Your task to perform on an android device: turn on airplane mode Image 0: 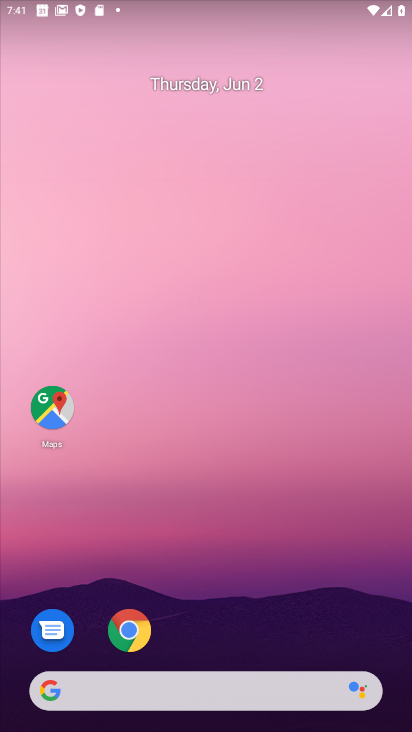
Step 0: drag from (177, 189) to (160, 725)
Your task to perform on an android device: turn on airplane mode Image 1: 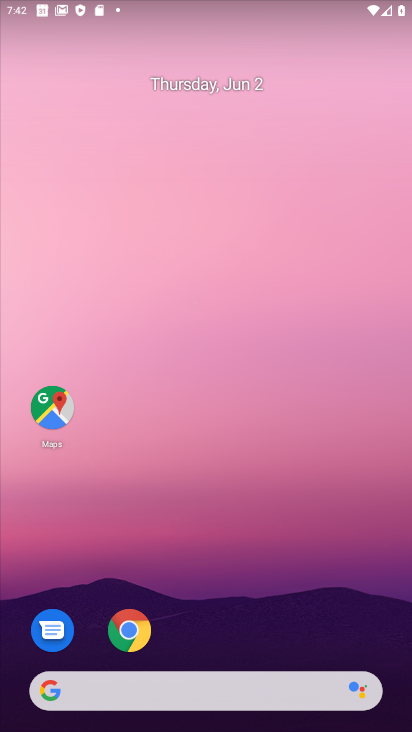
Step 1: drag from (219, 61) to (225, 592)
Your task to perform on an android device: turn on airplane mode Image 2: 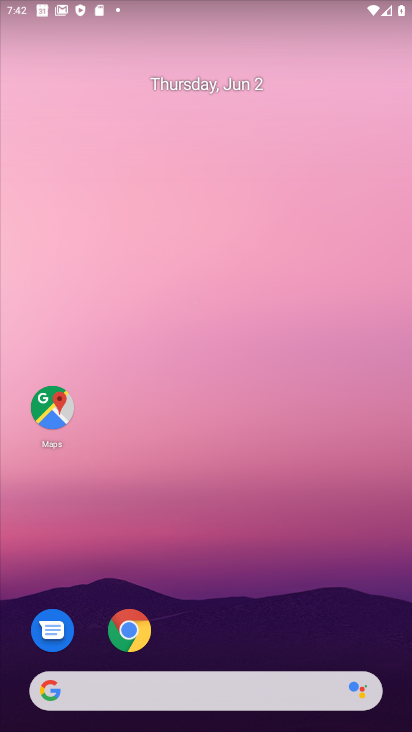
Step 2: drag from (253, 8) to (237, 650)
Your task to perform on an android device: turn on airplane mode Image 3: 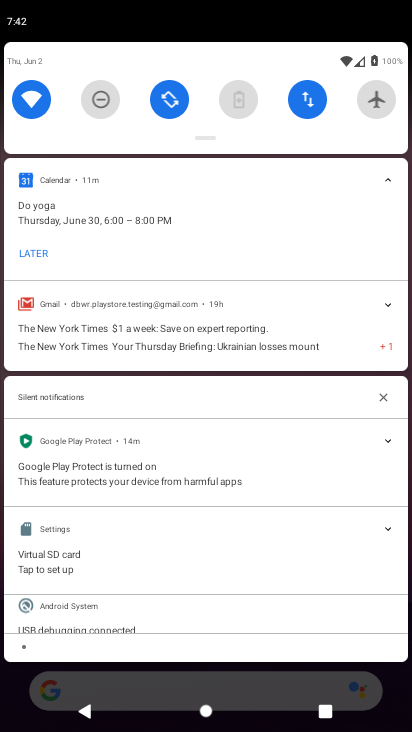
Step 3: click (379, 103)
Your task to perform on an android device: turn on airplane mode Image 4: 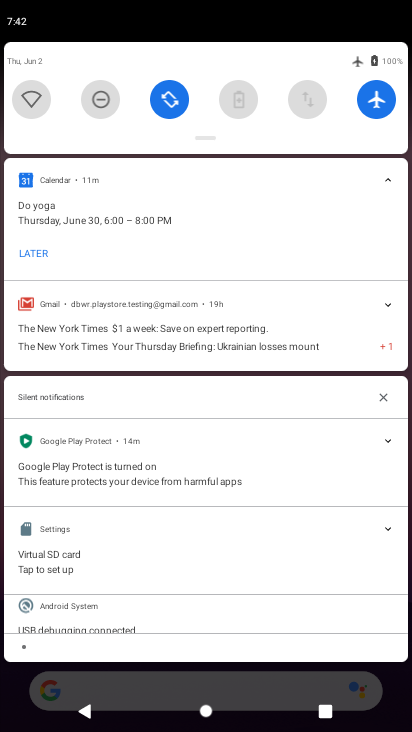
Step 4: task complete